Your task to perform on an android device: What is the recent news? Image 0: 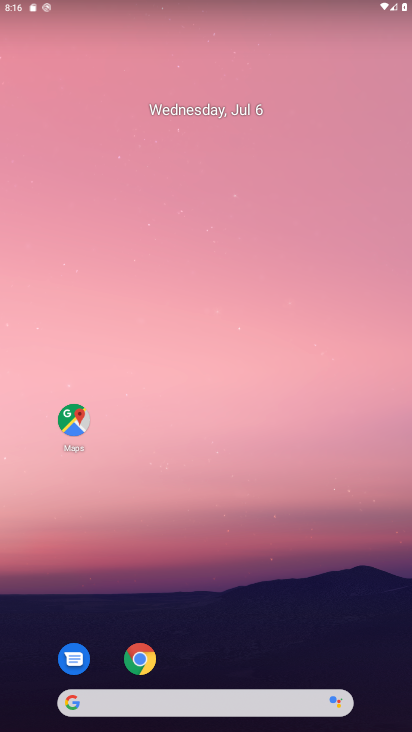
Step 0: drag from (116, 677) to (157, 10)
Your task to perform on an android device: What is the recent news? Image 1: 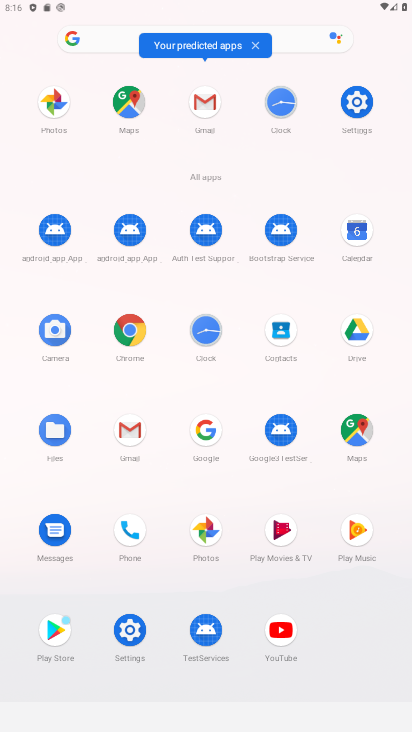
Step 1: click (130, 328)
Your task to perform on an android device: What is the recent news? Image 2: 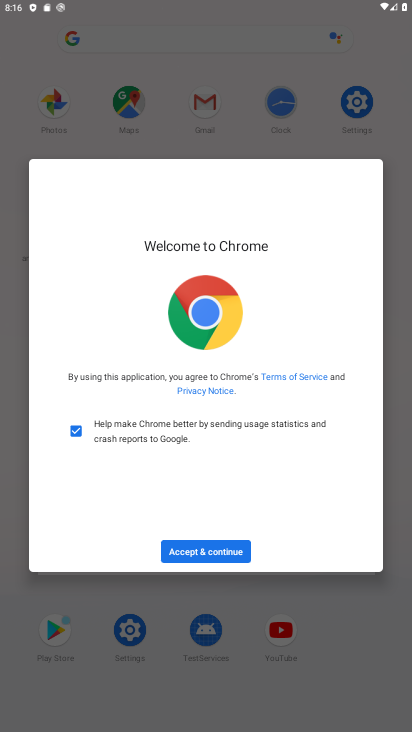
Step 2: click (219, 546)
Your task to perform on an android device: What is the recent news? Image 3: 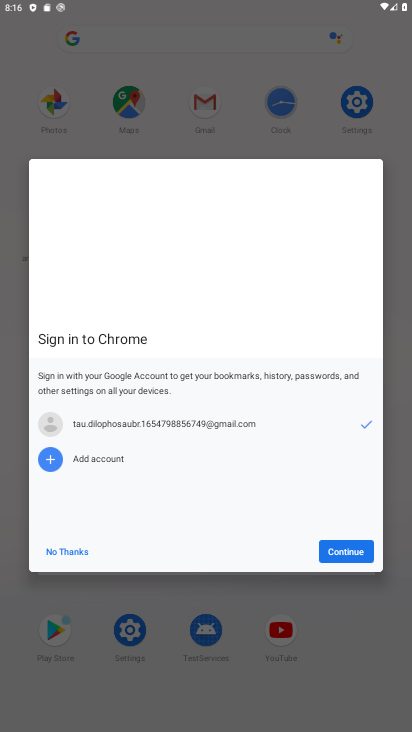
Step 3: click (76, 555)
Your task to perform on an android device: What is the recent news? Image 4: 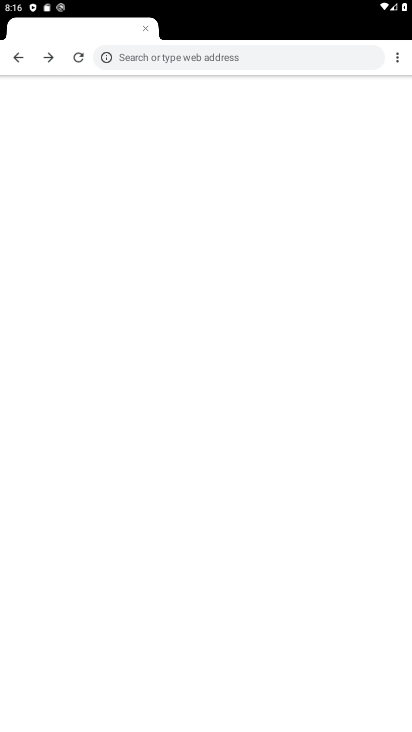
Step 4: click (239, 54)
Your task to perform on an android device: What is the recent news? Image 5: 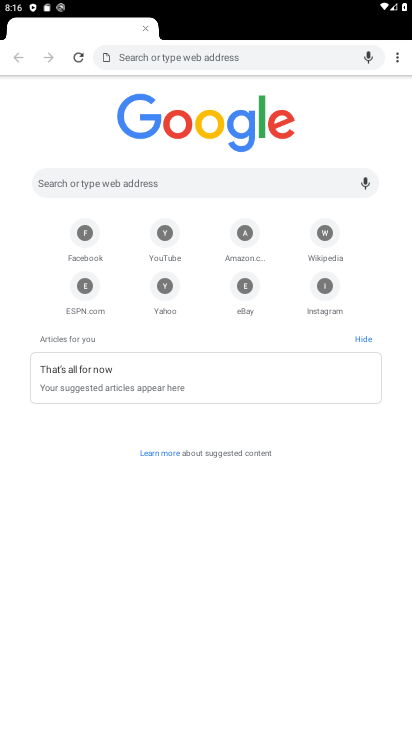
Step 5: click (239, 54)
Your task to perform on an android device: What is the recent news? Image 6: 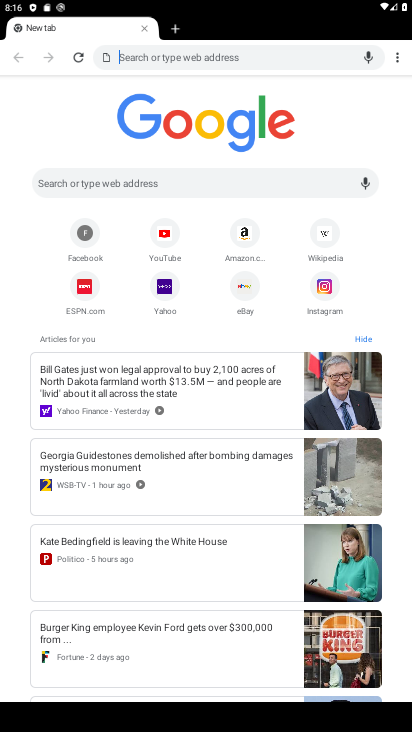
Step 6: type "recent news"
Your task to perform on an android device: What is the recent news? Image 7: 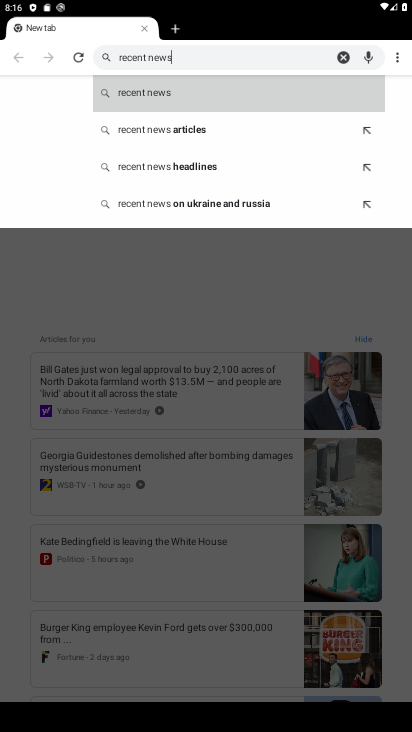
Step 7: click (155, 91)
Your task to perform on an android device: What is the recent news? Image 8: 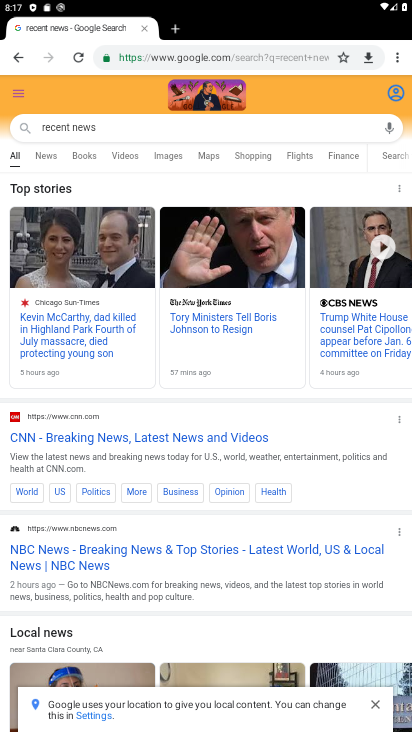
Step 8: task complete